Your task to perform on an android device: Open settings on Google Maps Image 0: 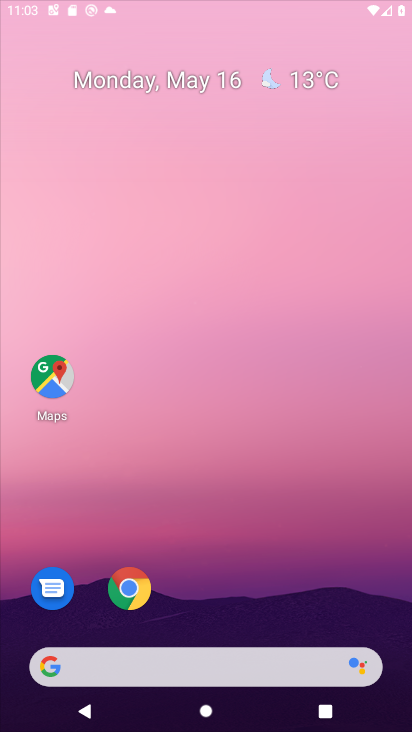
Step 0: press home button
Your task to perform on an android device: Open settings on Google Maps Image 1: 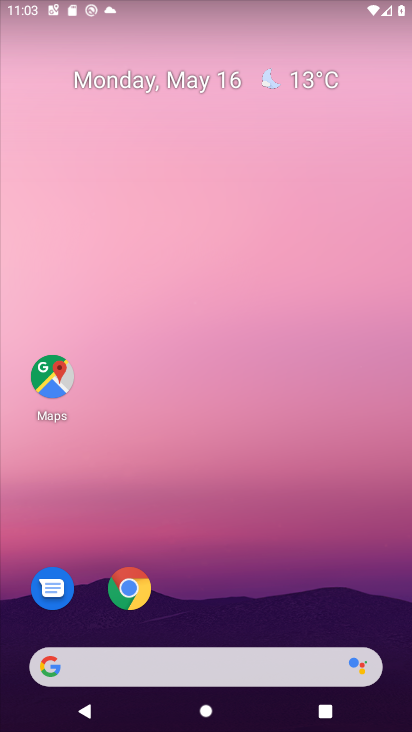
Step 1: drag from (218, 619) to (224, 3)
Your task to perform on an android device: Open settings on Google Maps Image 2: 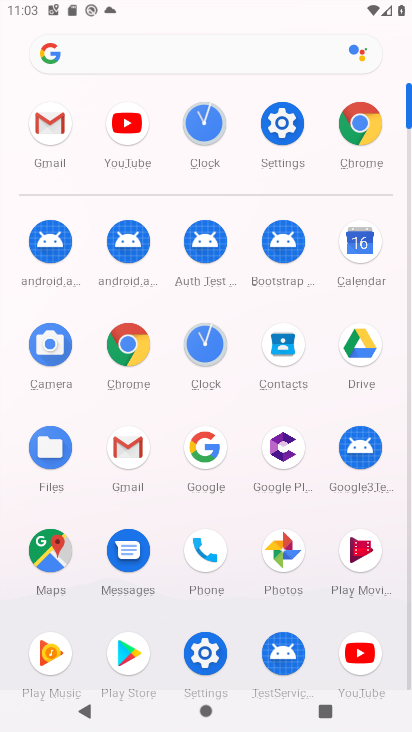
Step 2: click (49, 544)
Your task to perform on an android device: Open settings on Google Maps Image 3: 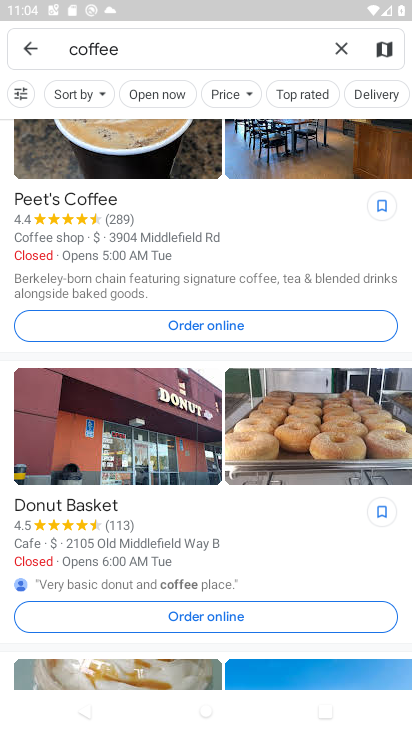
Step 3: click (29, 51)
Your task to perform on an android device: Open settings on Google Maps Image 4: 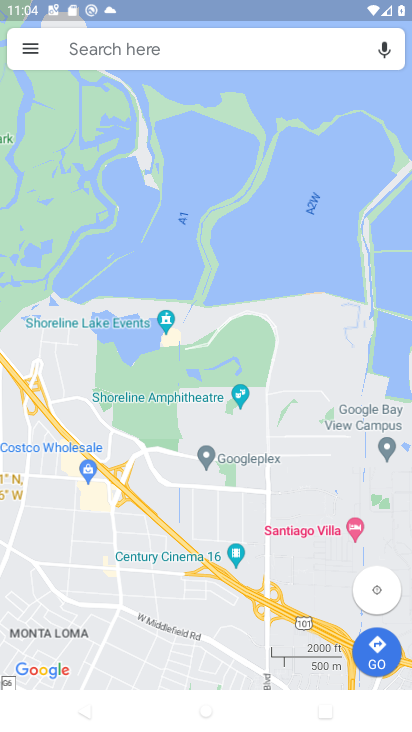
Step 4: click (29, 51)
Your task to perform on an android device: Open settings on Google Maps Image 5: 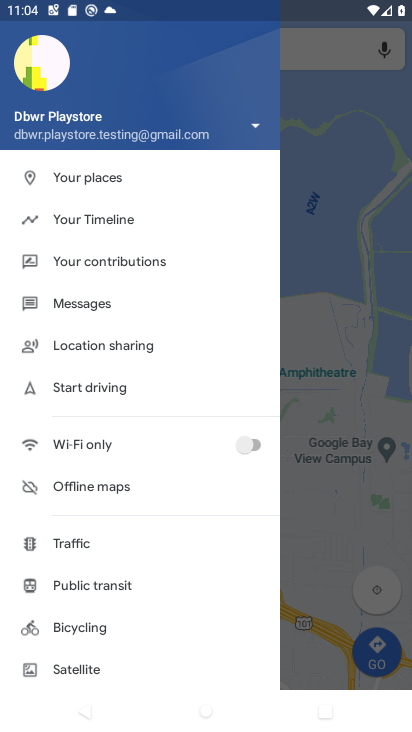
Step 5: drag from (119, 648) to (110, 147)
Your task to perform on an android device: Open settings on Google Maps Image 6: 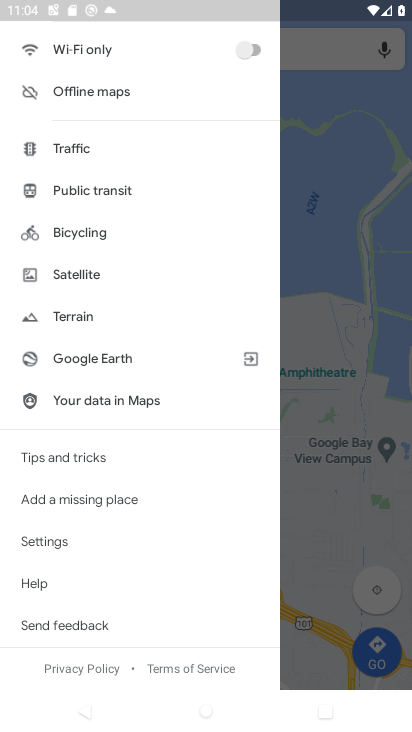
Step 6: click (76, 537)
Your task to perform on an android device: Open settings on Google Maps Image 7: 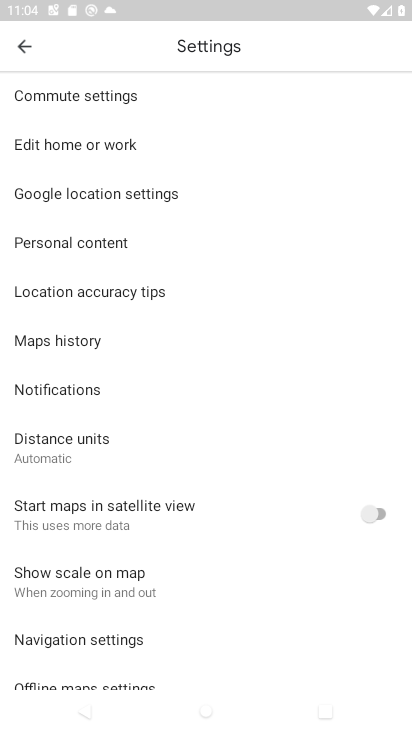
Step 7: task complete